Your task to perform on an android device: turn smart compose on in the gmail app Image 0: 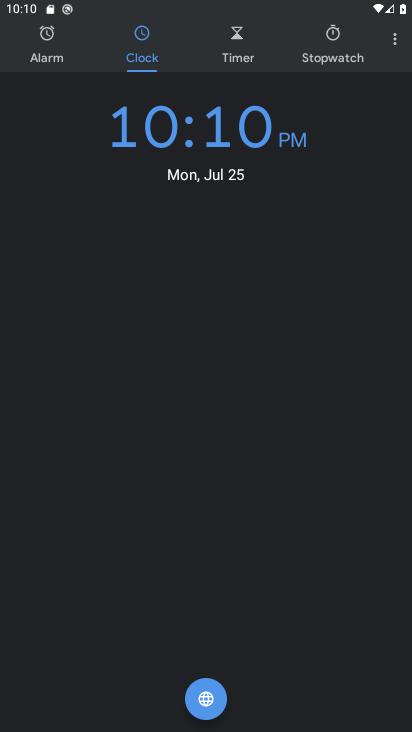
Step 0: press home button
Your task to perform on an android device: turn smart compose on in the gmail app Image 1: 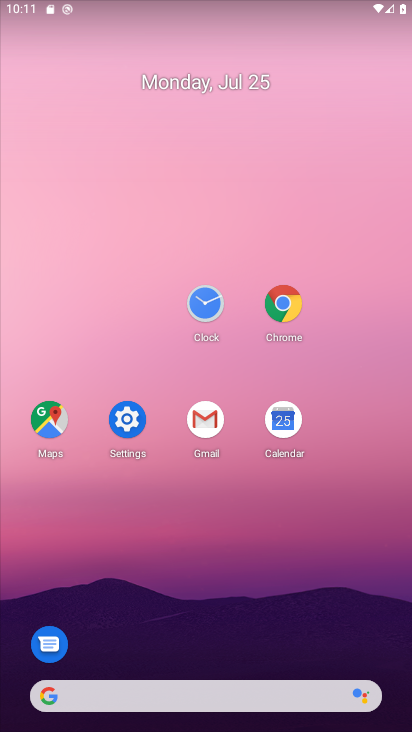
Step 1: click (200, 418)
Your task to perform on an android device: turn smart compose on in the gmail app Image 2: 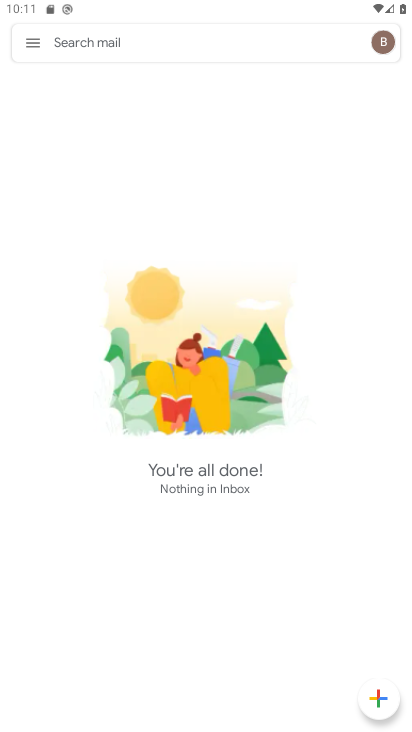
Step 2: click (26, 50)
Your task to perform on an android device: turn smart compose on in the gmail app Image 3: 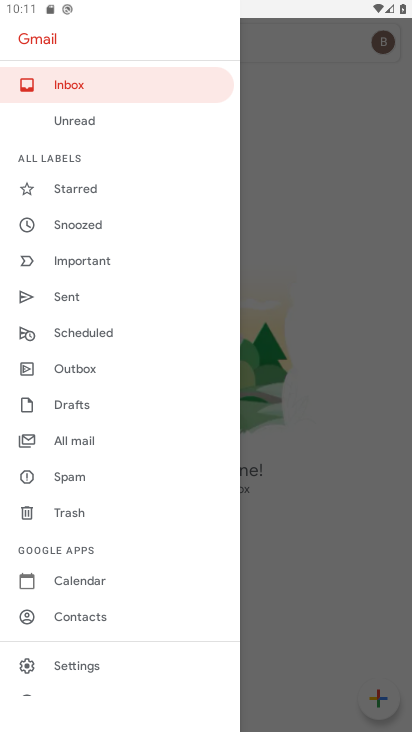
Step 3: click (76, 655)
Your task to perform on an android device: turn smart compose on in the gmail app Image 4: 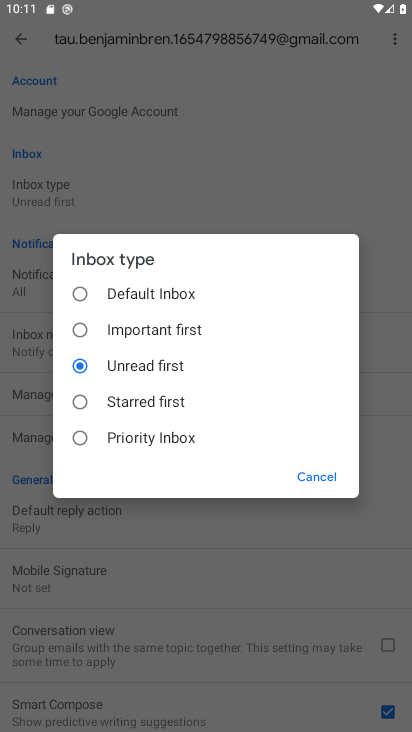
Step 4: click (325, 484)
Your task to perform on an android device: turn smart compose on in the gmail app Image 5: 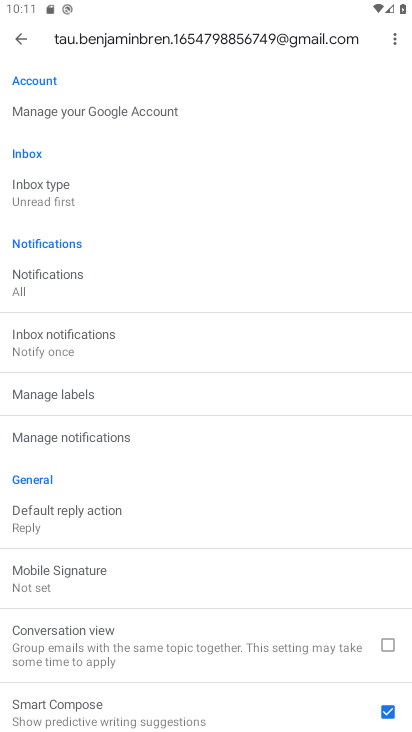
Step 5: task complete